Your task to perform on an android device: toggle translation in the chrome app Image 0: 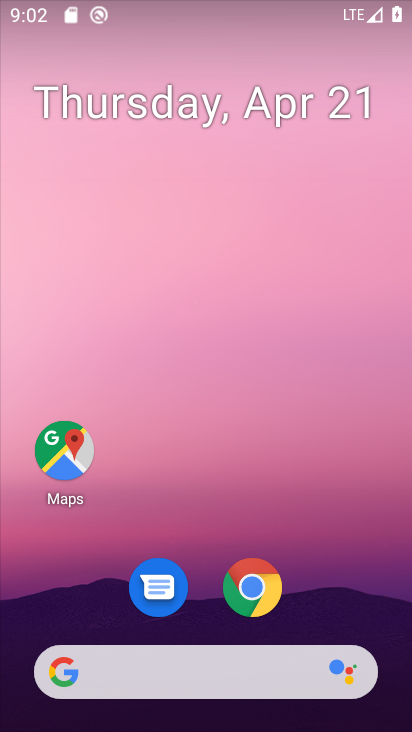
Step 0: click (365, 191)
Your task to perform on an android device: toggle translation in the chrome app Image 1: 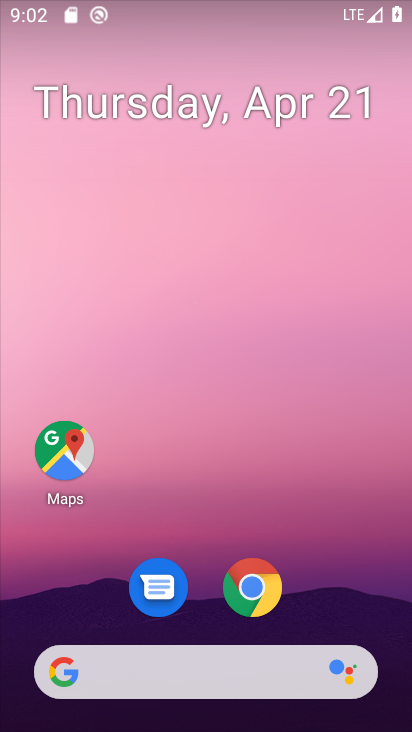
Step 1: click (250, 586)
Your task to perform on an android device: toggle translation in the chrome app Image 2: 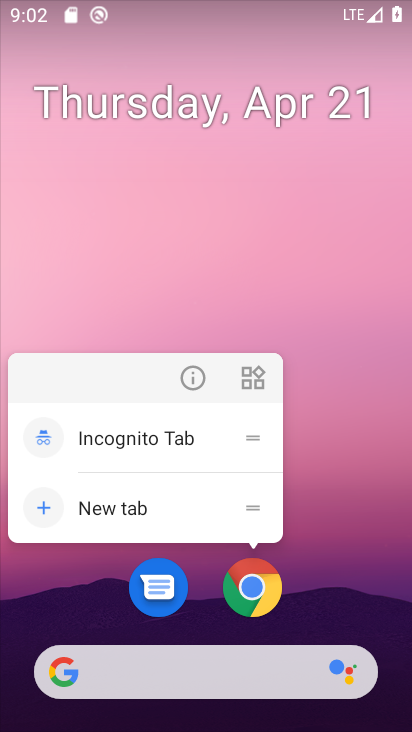
Step 2: click (250, 586)
Your task to perform on an android device: toggle translation in the chrome app Image 3: 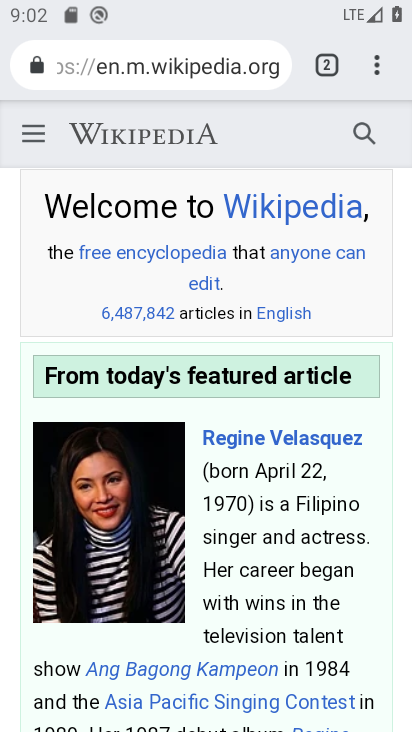
Step 3: click (373, 64)
Your task to perform on an android device: toggle translation in the chrome app Image 4: 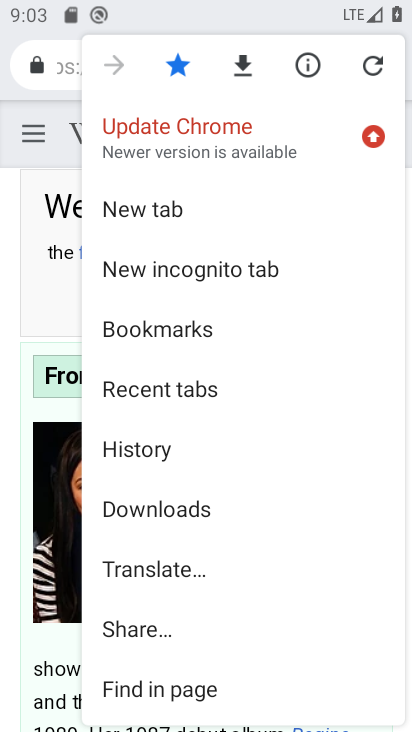
Step 4: drag from (334, 667) to (292, 308)
Your task to perform on an android device: toggle translation in the chrome app Image 5: 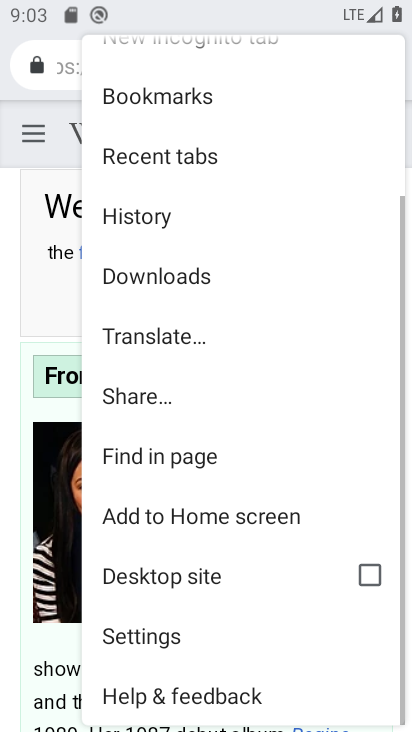
Step 5: click (134, 637)
Your task to perform on an android device: toggle translation in the chrome app Image 6: 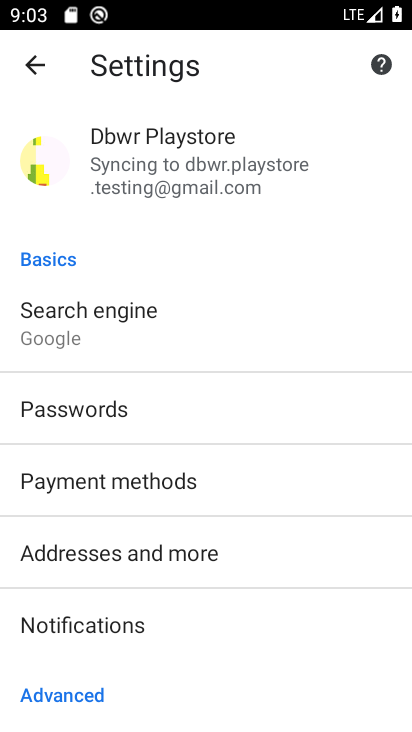
Step 6: drag from (277, 500) to (289, 312)
Your task to perform on an android device: toggle translation in the chrome app Image 7: 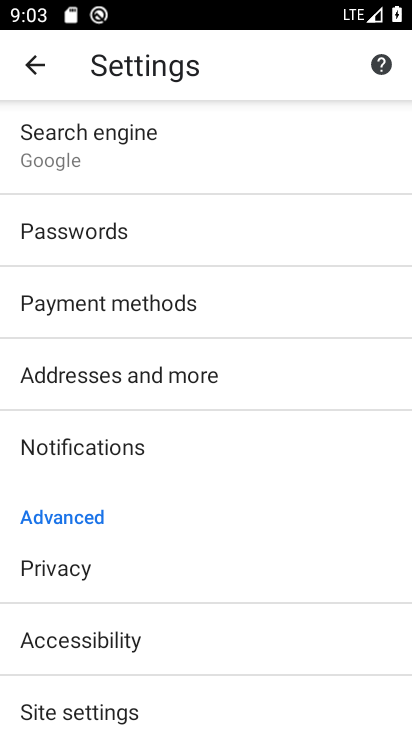
Step 7: drag from (294, 649) to (299, 274)
Your task to perform on an android device: toggle translation in the chrome app Image 8: 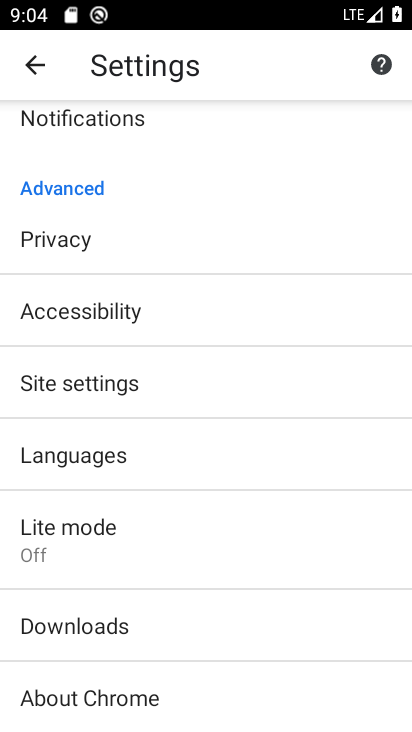
Step 8: click (71, 458)
Your task to perform on an android device: toggle translation in the chrome app Image 9: 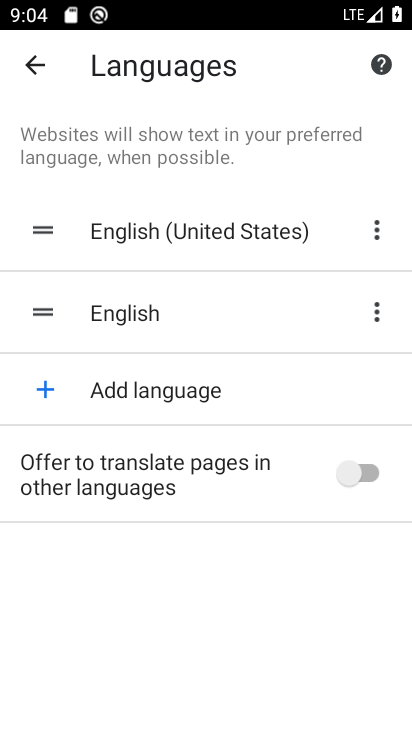
Step 9: click (367, 473)
Your task to perform on an android device: toggle translation in the chrome app Image 10: 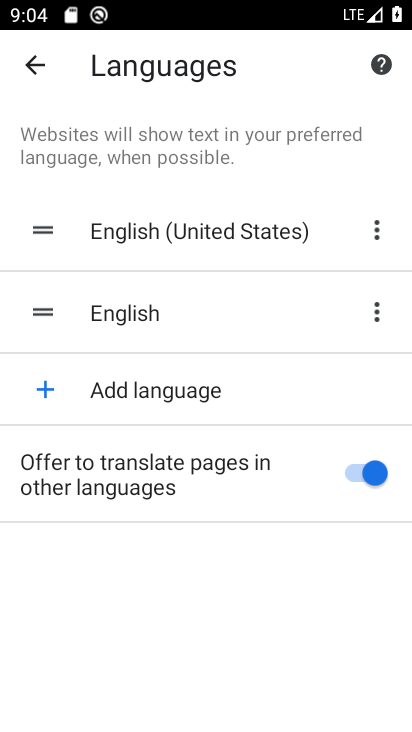
Step 10: task complete